Your task to perform on an android device: move an email to a new category in the gmail app Image 0: 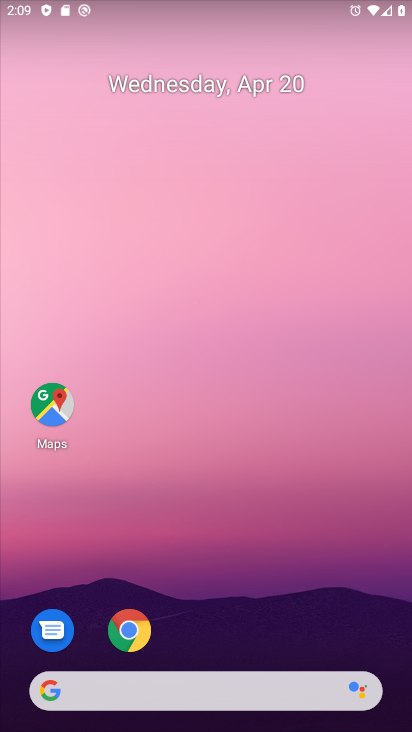
Step 0: drag from (218, 637) to (180, 237)
Your task to perform on an android device: move an email to a new category in the gmail app Image 1: 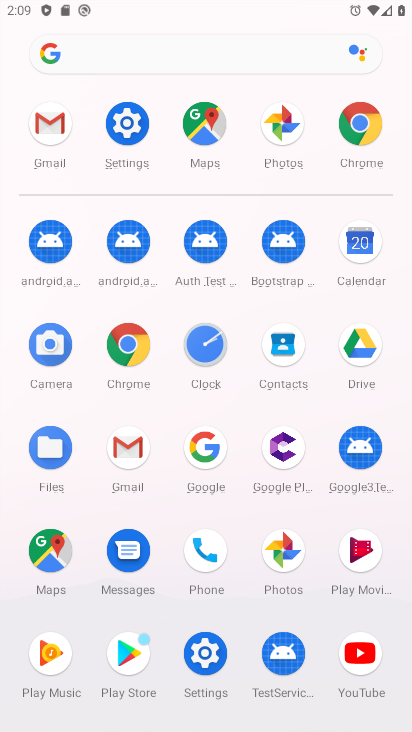
Step 1: click (128, 453)
Your task to perform on an android device: move an email to a new category in the gmail app Image 2: 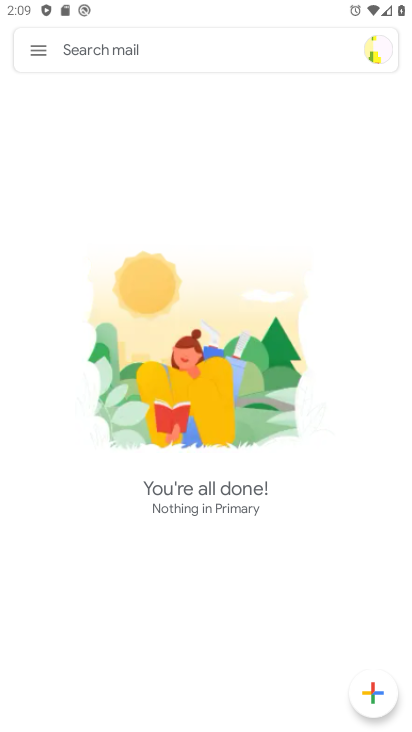
Step 2: click (28, 50)
Your task to perform on an android device: move an email to a new category in the gmail app Image 3: 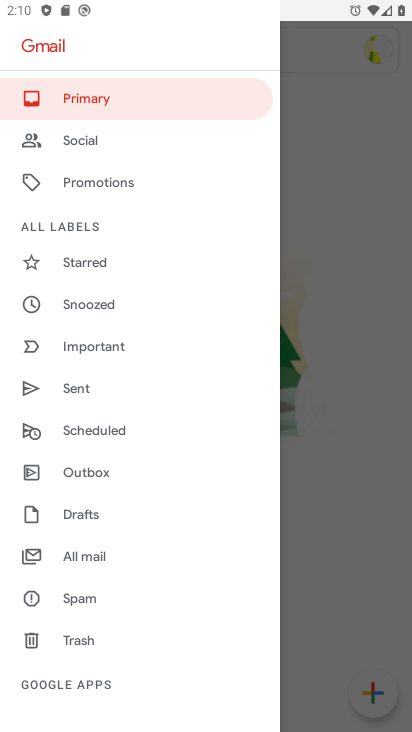
Step 3: click (337, 152)
Your task to perform on an android device: move an email to a new category in the gmail app Image 4: 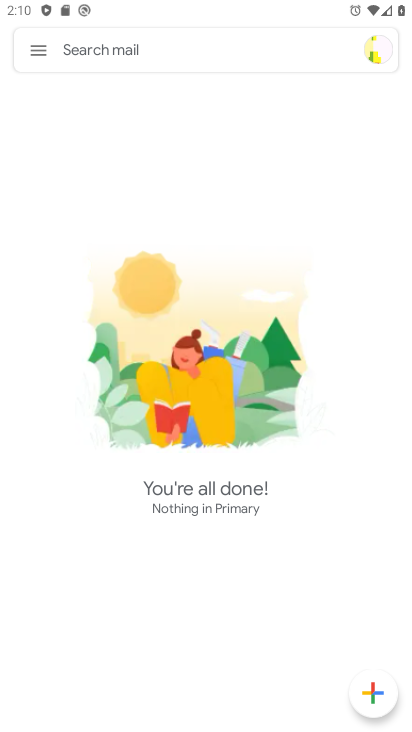
Step 4: task complete